Your task to perform on an android device: Show me the alarms in the clock app Image 0: 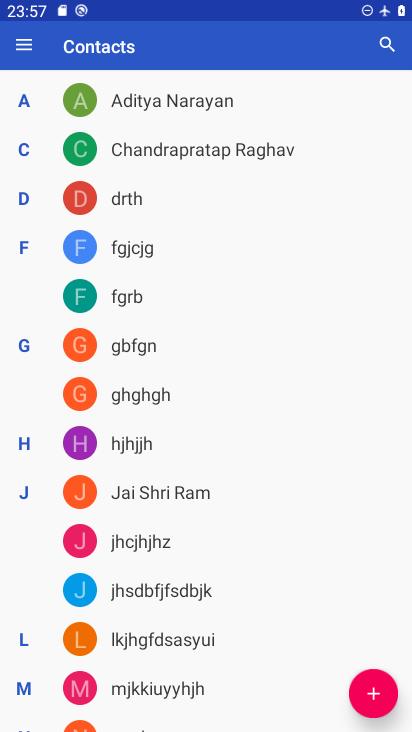
Step 0: press home button
Your task to perform on an android device: Show me the alarms in the clock app Image 1: 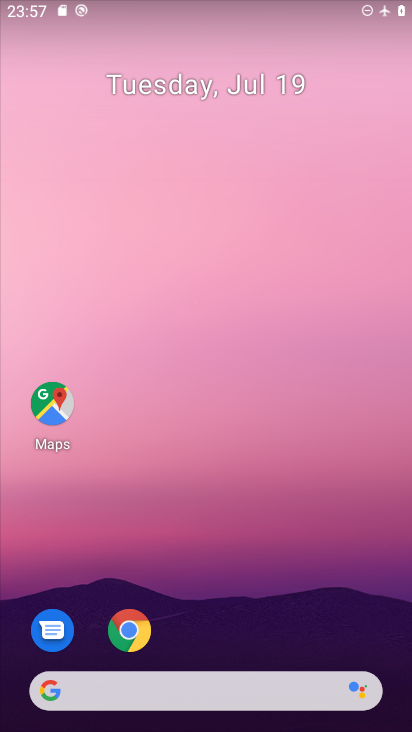
Step 1: drag from (225, 621) to (227, 226)
Your task to perform on an android device: Show me the alarms in the clock app Image 2: 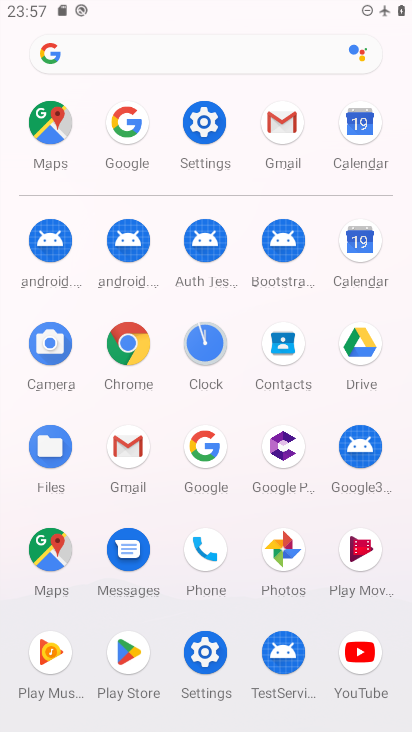
Step 2: click (206, 340)
Your task to perform on an android device: Show me the alarms in the clock app Image 3: 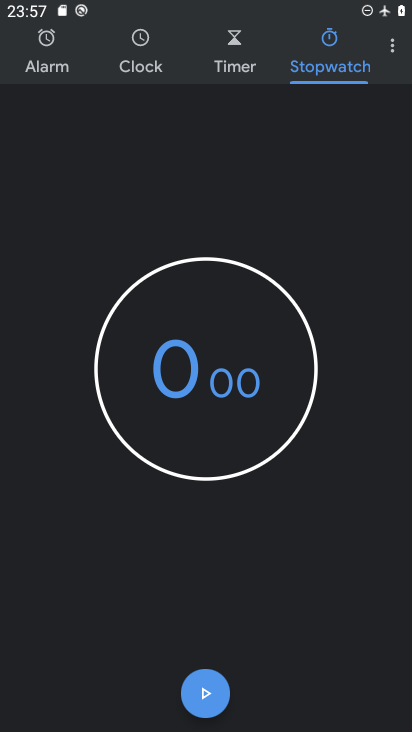
Step 3: click (387, 47)
Your task to perform on an android device: Show me the alarms in the clock app Image 4: 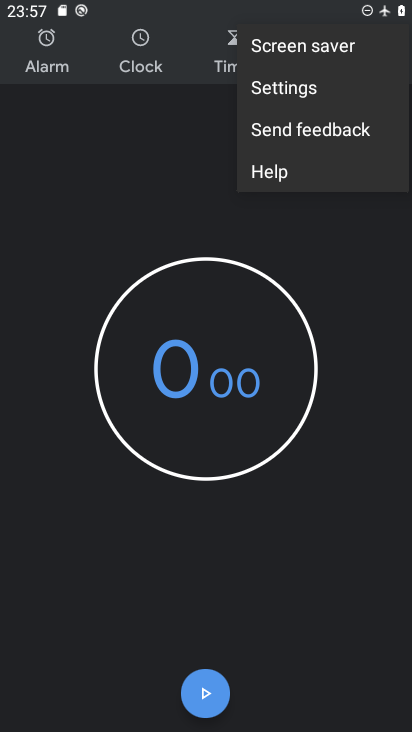
Step 4: click (71, 49)
Your task to perform on an android device: Show me the alarms in the clock app Image 5: 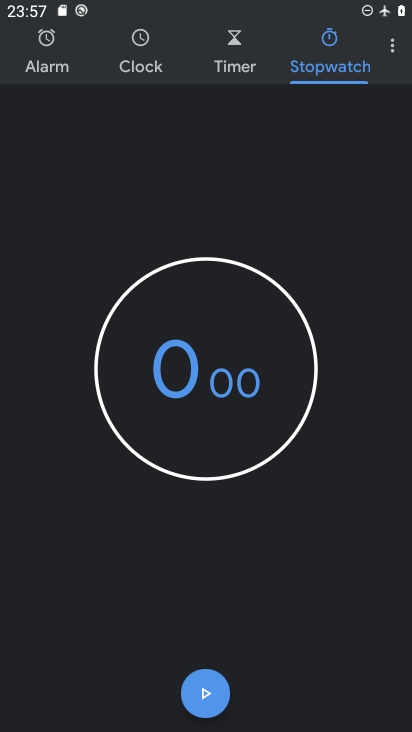
Step 5: click (64, 49)
Your task to perform on an android device: Show me the alarms in the clock app Image 6: 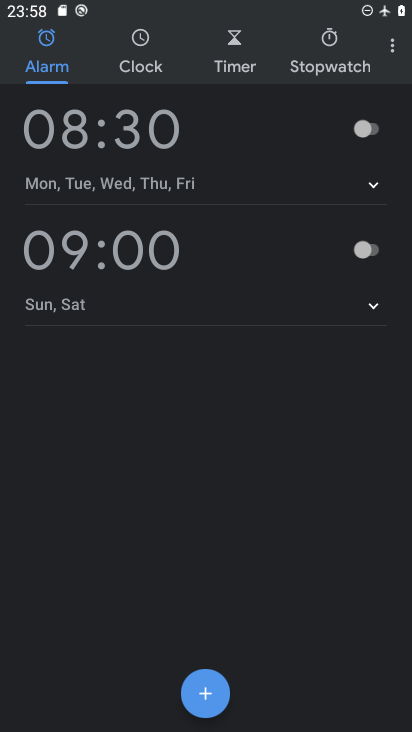
Step 6: task complete